Your task to perform on an android device: turn on data saver in the chrome app Image 0: 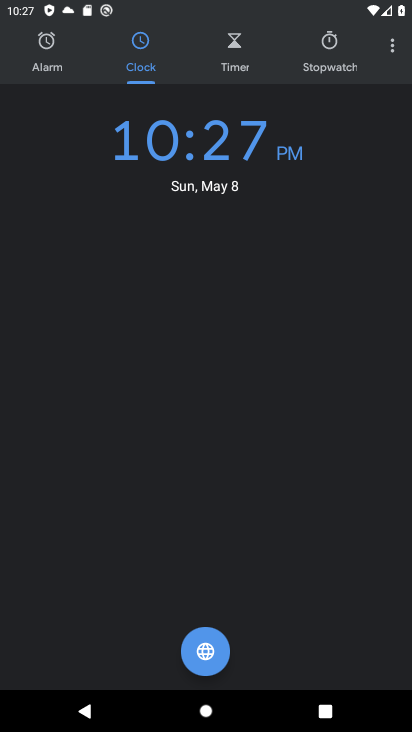
Step 0: press home button
Your task to perform on an android device: turn on data saver in the chrome app Image 1: 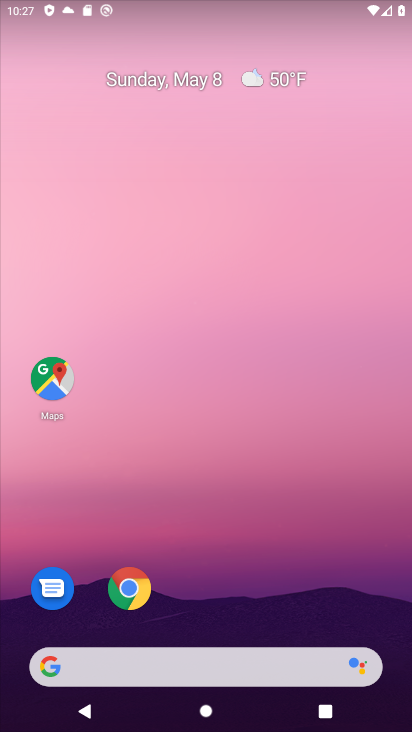
Step 1: click (144, 583)
Your task to perform on an android device: turn on data saver in the chrome app Image 2: 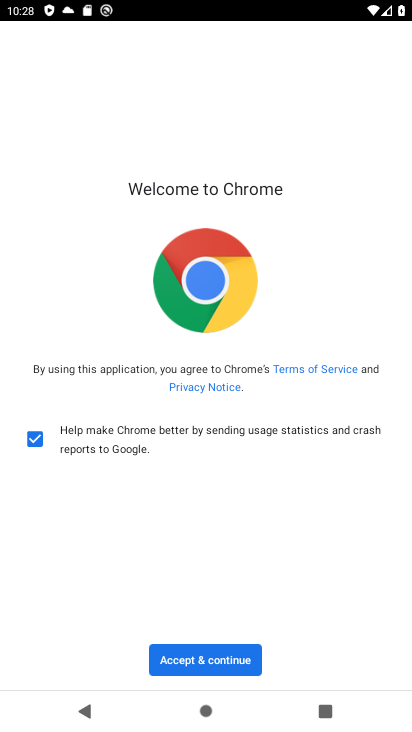
Step 2: click (228, 651)
Your task to perform on an android device: turn on data saver in the chrome app Image 3: 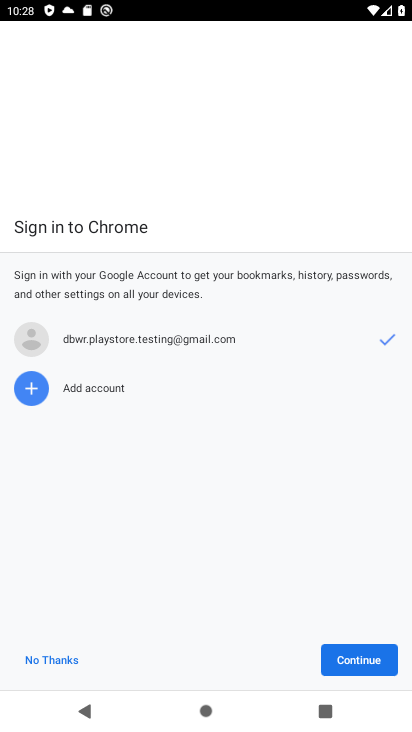
Step 3: click (376, 662)
Your task to perform on an android device: turn on data saver in the chrome app Image 4: 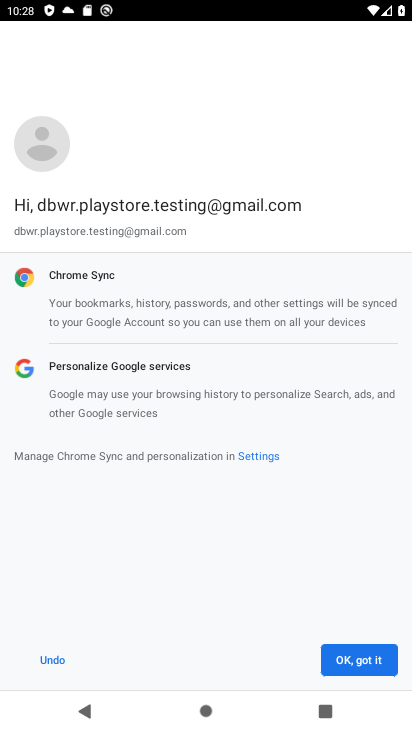
Step 4: click (365, 659)
Your task to perform on an android device: turn on data saver in the chrome app Image 5: 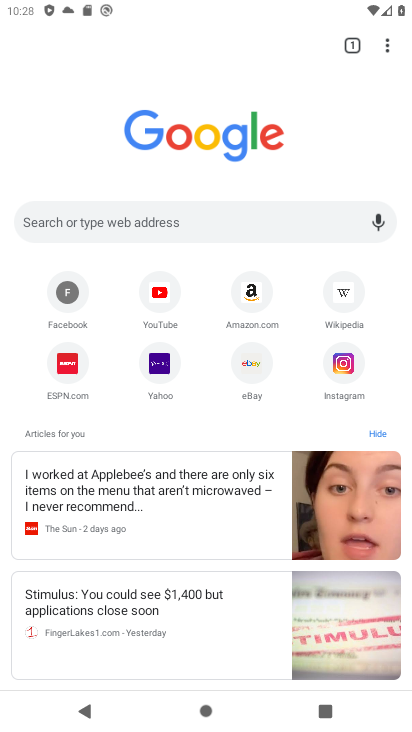
Step 5: click (389, 46)
Your task to perform on an android device: turn on data saver in the chrome app Image 6: 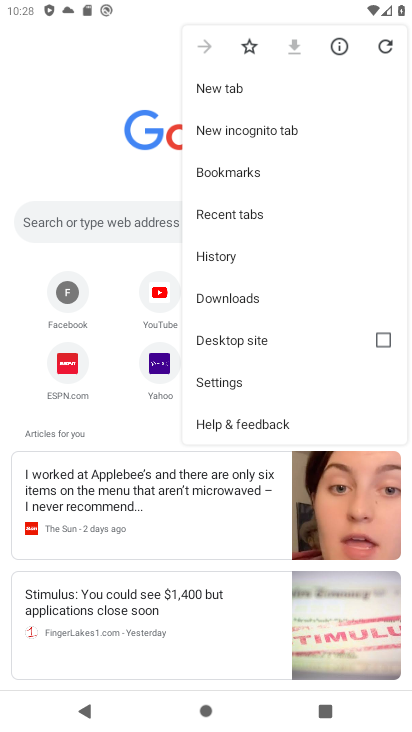
Step 6: click (266, 379)
Your task to perform on an android device: turn on data saver in the chrome app Image 7: 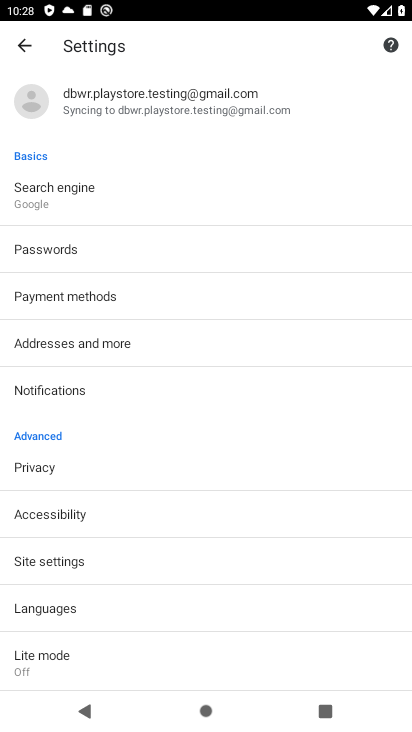
Step 7: click (102, 658)
Your task to perform on an android device: turn on data saver in the chrome app Image 8: 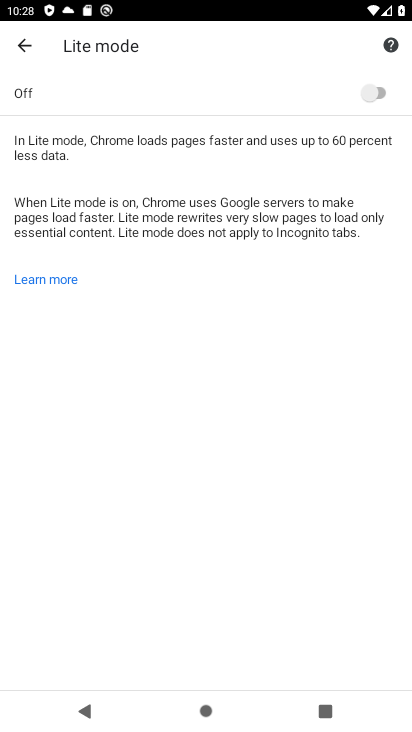
Step 8: click (366, 98)
Your task to perform on an android device: turn on data saver in the chrome app Image 9: 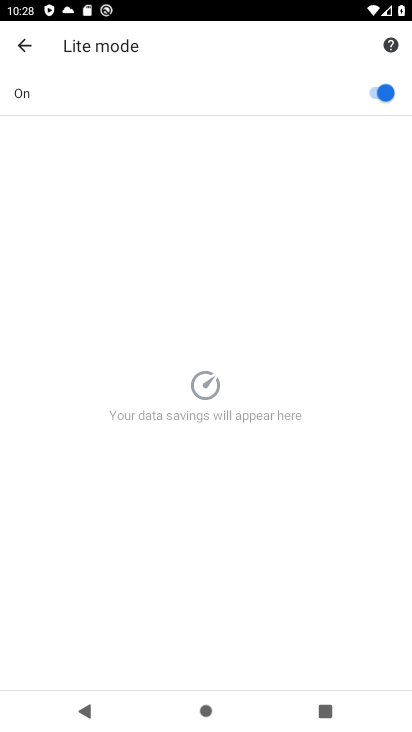
Step 9: task complete